Your task to perform on an android device: turn notification dots on Image 0: 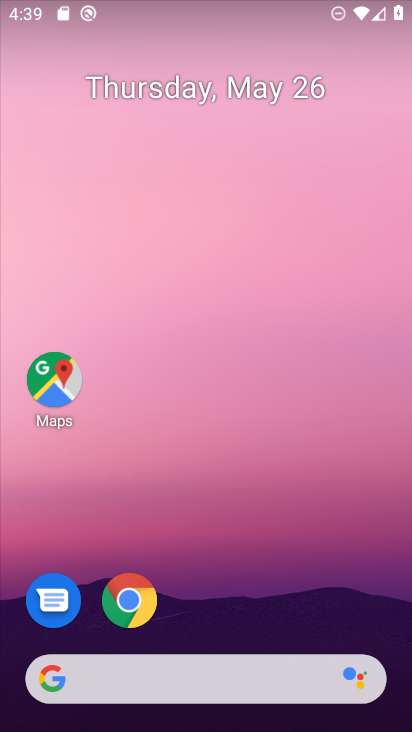
Step 0: drag from (246, 635) to (289, 191)
Your task to perform on an android device: turn notification dots on Image 1: 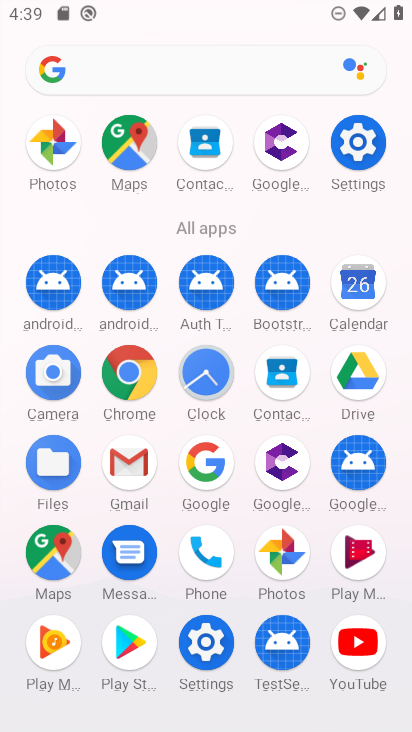
Step 1: click (356, 139)
Your task to perform on an android device: turn notification dots on Image 2: 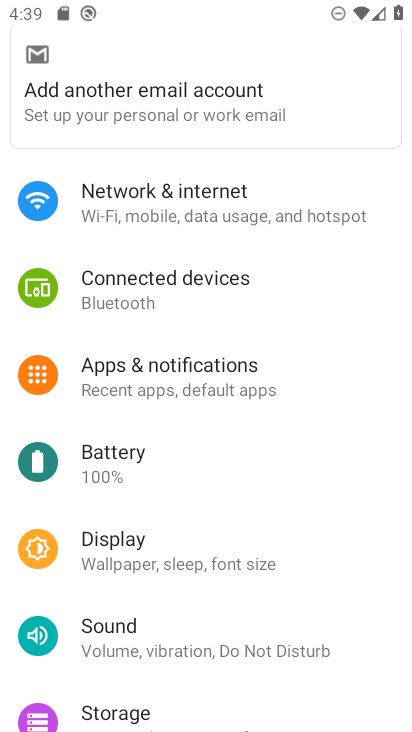
Step 2: click (204, 370)
Your task to perform on an android device: turn notification dots on Image 3: 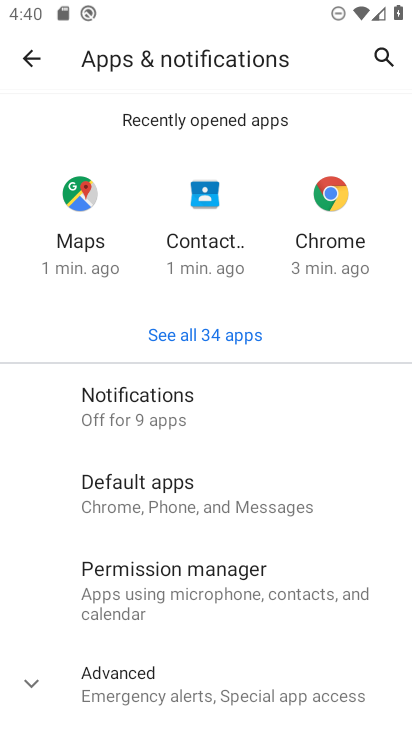
Step 3: click (177, 398)
Your task to perform on an android device: turn notification dots on Image 4: 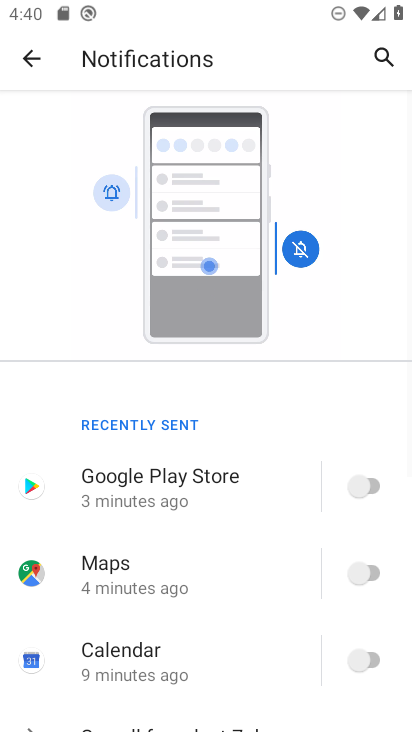
Step 4: drag from (250, 580) to (261, 224)
Your task to perform on an android device: turn notification dots on Image 5: 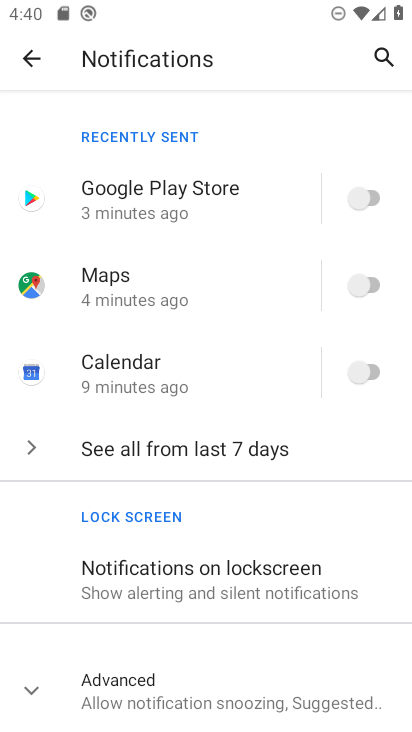
Step 5: click (145, 685)
Your task to perform on an android device: turn notification dots on Image 6: 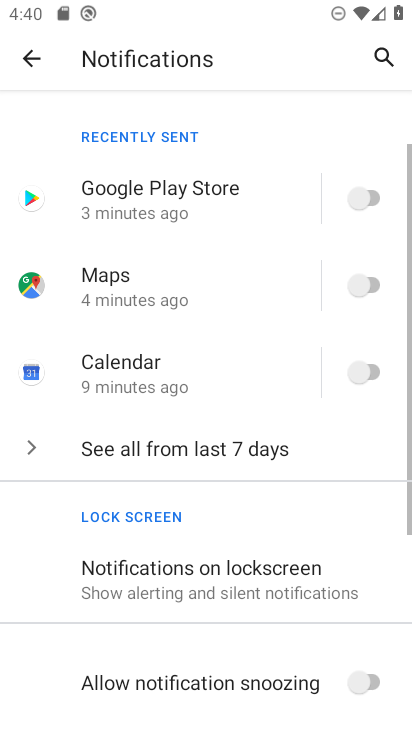
Step 6: task complete